Your task to perform on an android device: Add razer nari to the cart on walmart.com Image 0: 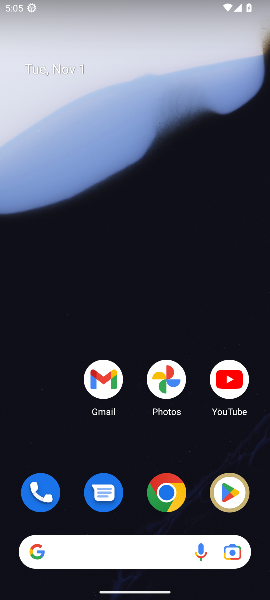
Step 0: click (168, 502)
Your task to perform on an android device: Add razer nari to the cart on walmart.com Image 1: 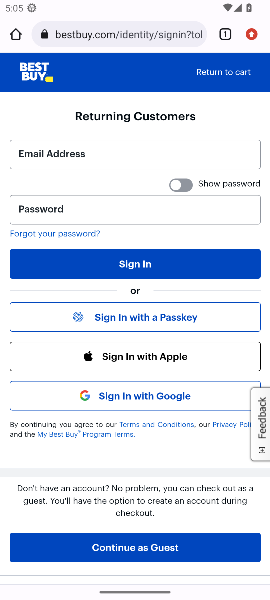
Step 1: click (109, 39)
Your task to perform on an android device: Add razer nari to the cart on walmart.com Image 2: 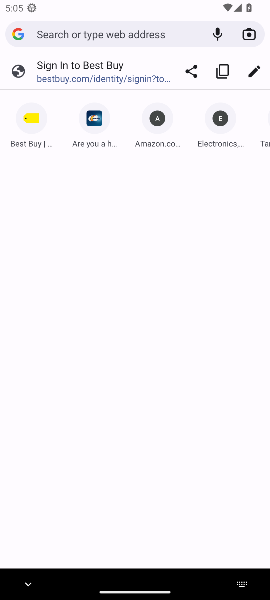
Step 2: type "walmart.com"
Your task to perform on an android device: Add razer nari to the cart on walmart.com Image 3: 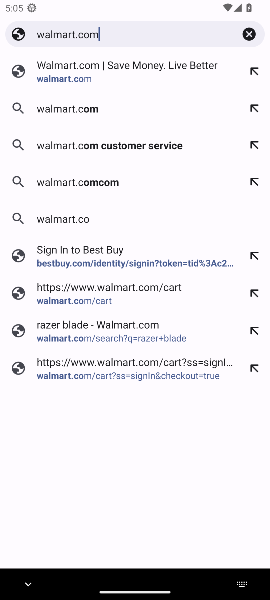
Step 3: type ""
Your task to perform on an android device: Add razer nari to the cart on walmart.com Image 4: 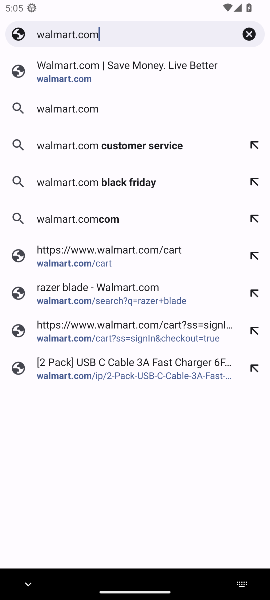
Step 4: click (123, 72)
Your task to perform on an android device: Add razer nari to the cart on walmart.com Image 5: 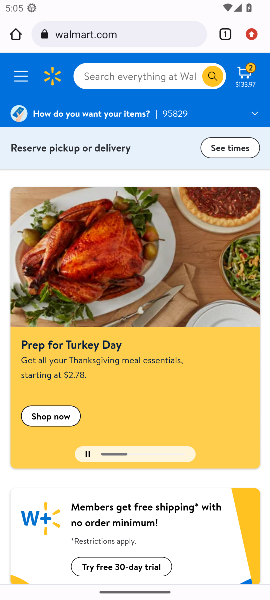
Step 5: click (123, 72)
Your task to perform on an android device: Add razer nari to the cart on walmart.com Image 6: 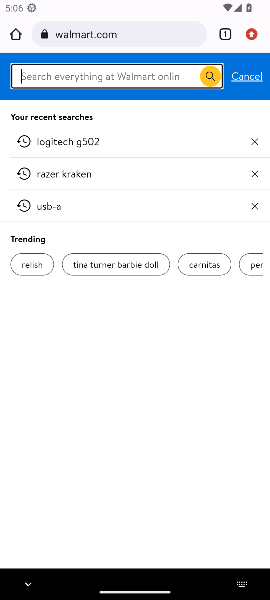
Step 6: type "razer nari"
Your task to perform on an android device: Add razer nari to the cart on walmart.com Image 7: 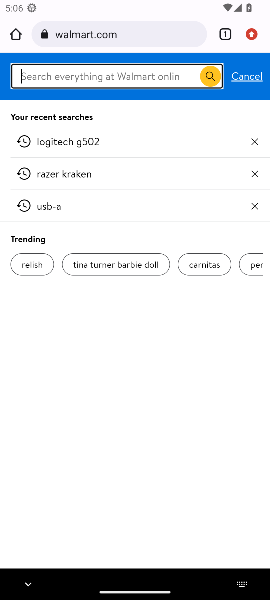
Step 7: type ""
Your task to perform on an android device: Add razer nari to the cart on walmart.com Image 8: 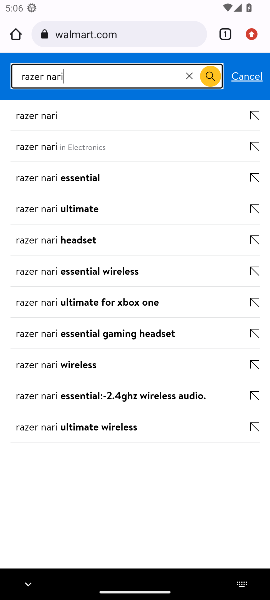
Step 8: click (107, 143)
Your task to perform on an android device: Add razer nari to the cart on walmart.com Image 9: 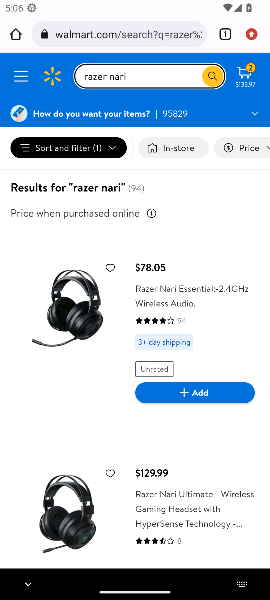
Step 9: click (201, 287)
Your task to perform on an android device: Add razer nari to the cart on walmart.com Image 10: 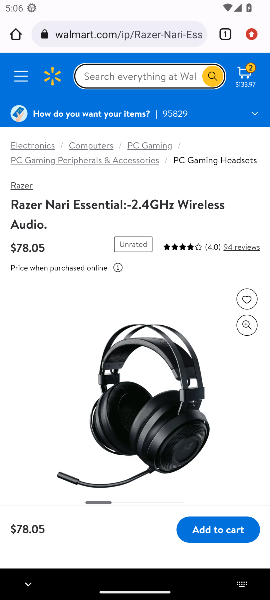
Step 10: click (255, 71)
Your task to perform on an android device: Add razer nari to the cart on walmart.com Image 11: 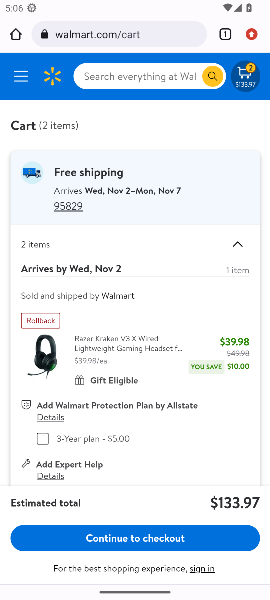
Step 11: drag from (127, 442) to (149, 281)
Your task to perform on an android device: Add razer nari to the cart on walmart.com Image 12: 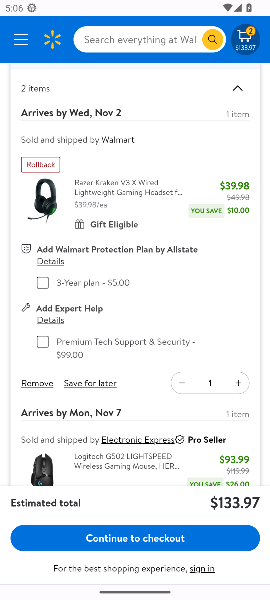
Step 12: click (47, 385)
Your task to perform on an android device: Add razer nari to the cart on walmart.com Image 13: 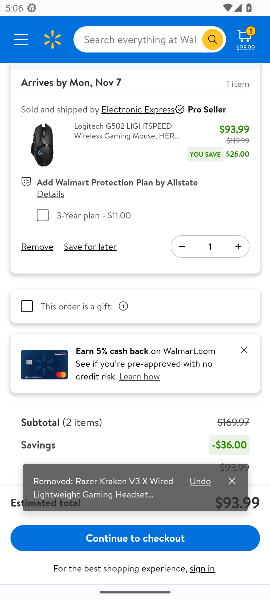
Step 13: click (45, 245)
Your task to perform on an android device: Add razer nari to the cart on walmart.com Image 14: 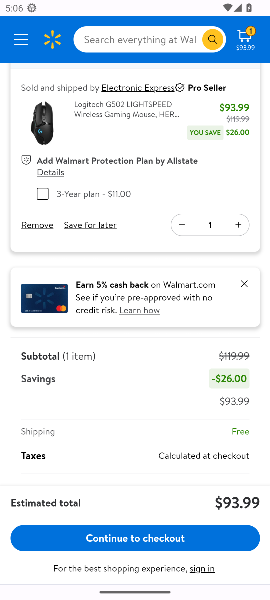
Step 14: click (33, 227)
Your task to perform on an android device: Add razer nari to the cart on walmart.com Image 15: 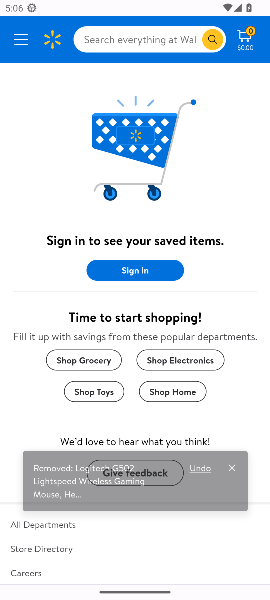
Step 15: press back button
Your task to perform on an android device: Add razer nari to the cart on walmart.com Image 16: 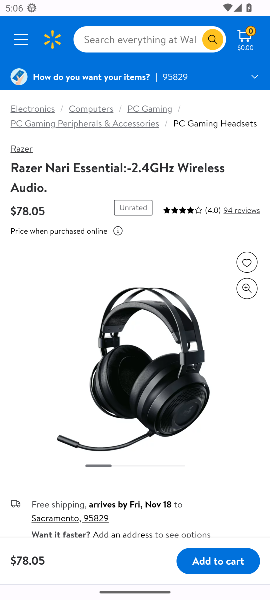
Step 16: click (202, 553)
Your task to perform on an android device: Add razer nari to the cart on walmart.com Image 17: 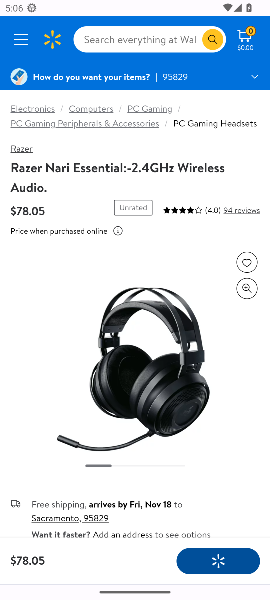
Step 17: click (251, 37)
Your task to perform on an android device: Add razer nari to the cart on walmart.com Image 18: 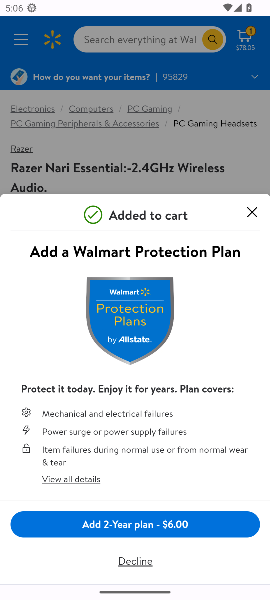
Step 18: click (127, 567)
Your task to perform on an android device: Add razer nari to the cart on walmart.com Image 19: 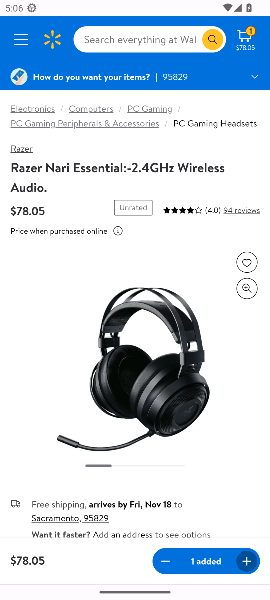
Step 19: click (247, 37)
Your task to perform on an android device: Add razer nari to the cart on walmart.com Image 20: 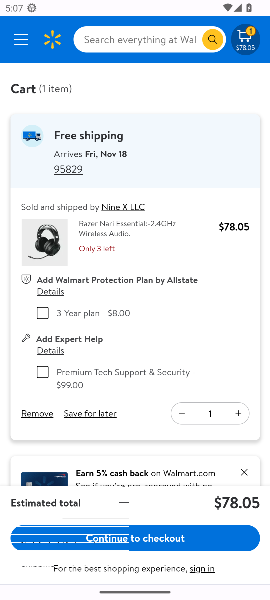
Step 20: click (140, 549)
Your task to perform on an android device: Add razer nari to the cart on walmart.com Image 21: 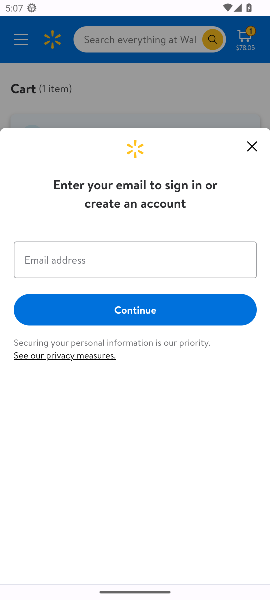
Step 21: click (250, 135)
Your task to perform on an android device: Add razer nari to the cart on walmart.com Image 22: 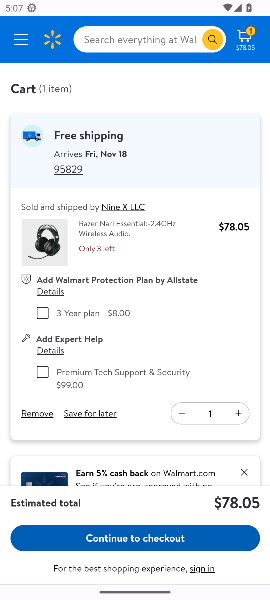
Step 22: task complete